Your task to perform on an android device: search for starred emails in the gmail app Image 0: 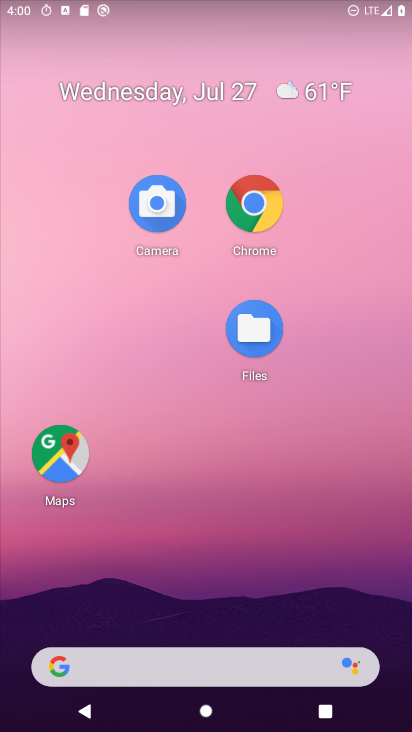
Step 0: drag from (213, 617) to (216, 113)
Your task to perform on an android device: search for starred emails in the gmail app Image 1: 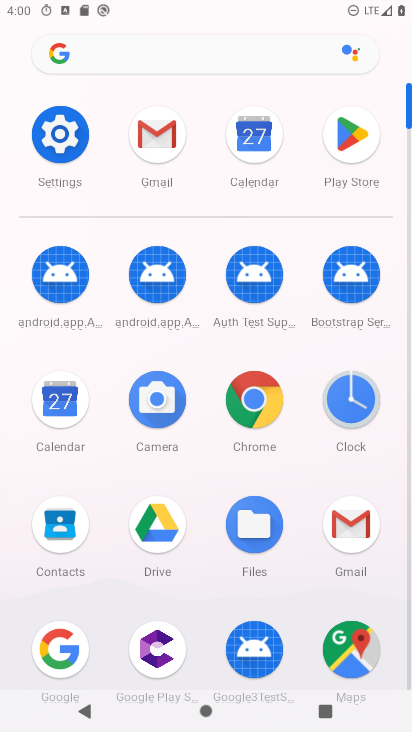
Step 1: click (169, 145)
Your task to perform on an android device: search for starred emails in the gmail app Image 2: 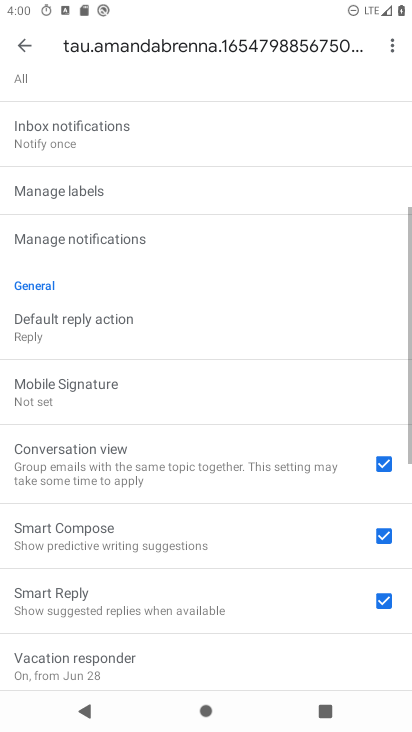
Step 2: click (12, 48)
Your task to perform on an android device: search for starred emails in the gmail app Image 3: 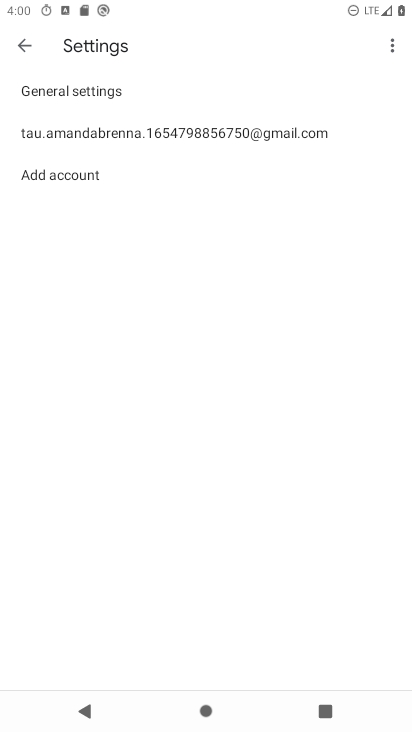
Step 3: click (23, 49)
Your task to perform on an android device: search for starred emails in the gmail app Image 4: 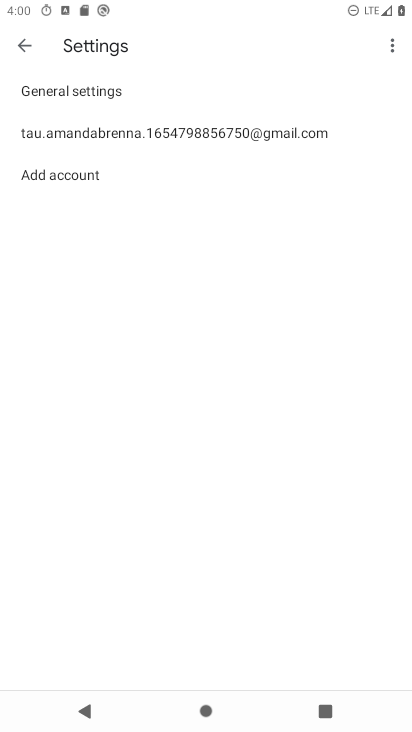
Step 4: click (24, 33)
Your task to perform on an android device: search for starred emails in the gmail app Image 5: 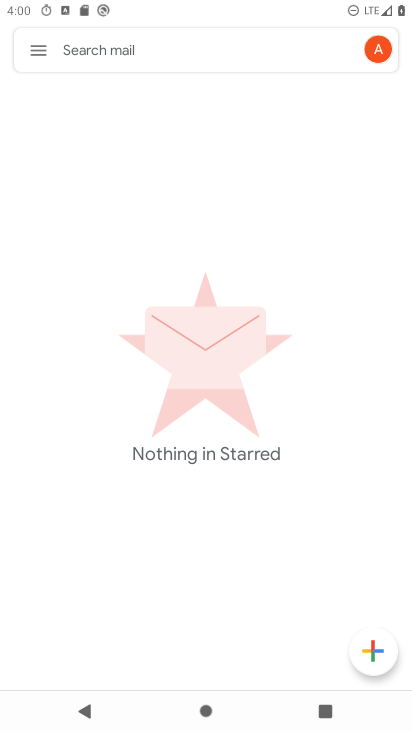
Step 5: click (29, 55)
Your task to perform on an android device: search for starred emails in the gmail app Image 6: 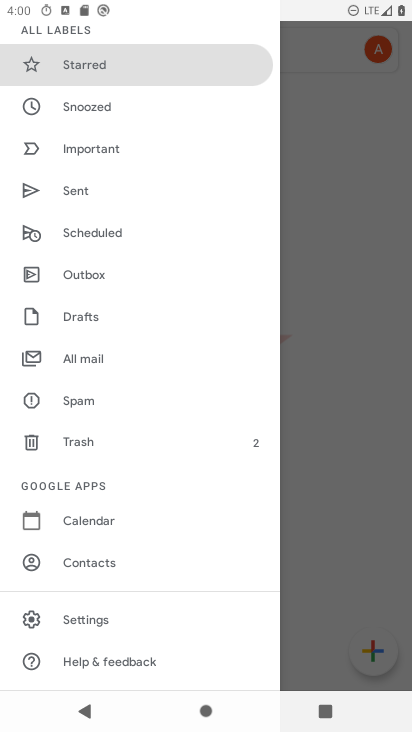
Step 6: click (102, 67)
Your task to perform on an android device: search for starred emails in the gmail app Image 7: 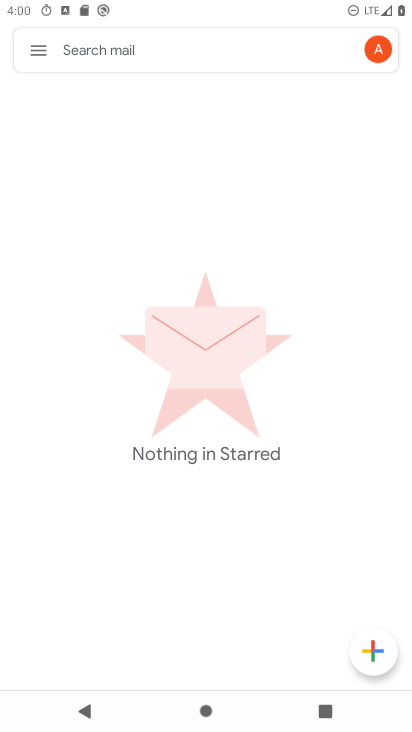
Step 7: task complete